Your task to perform on an android device: Open Yahoo.com Image 0: 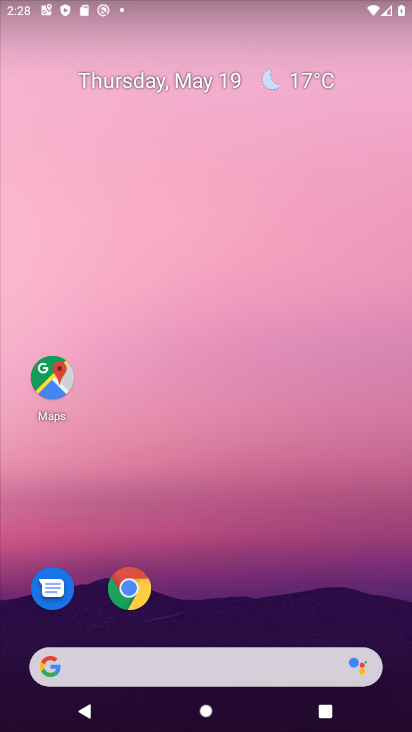
Step 0: click (131, 581)
Your task to perform on an android device: Open Yahoo.com Image 1: 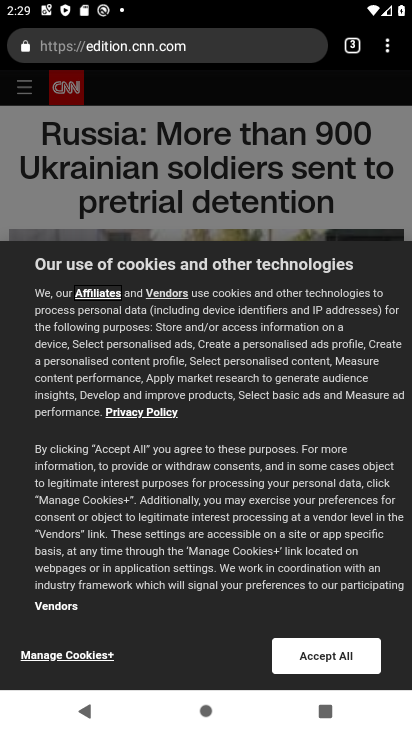
Step 1: click (138, 33)
Your task to perform on an android device: Open Yahoo.com Image 2: 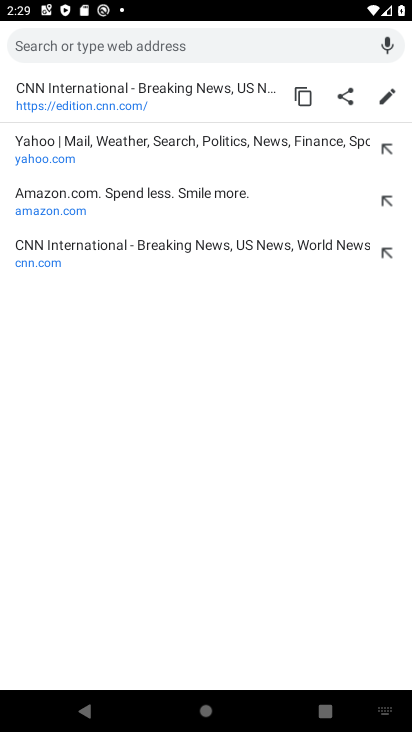
Step 2: click (67, 156)
Your task to perform on an android device: Open Yahoo.com Image 3: 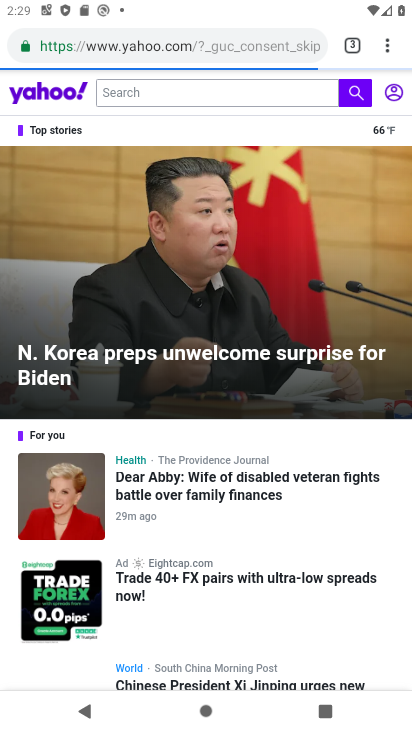
Step 3: task complete